Your task to perform on an android device: Go to CNN.com Image 0: 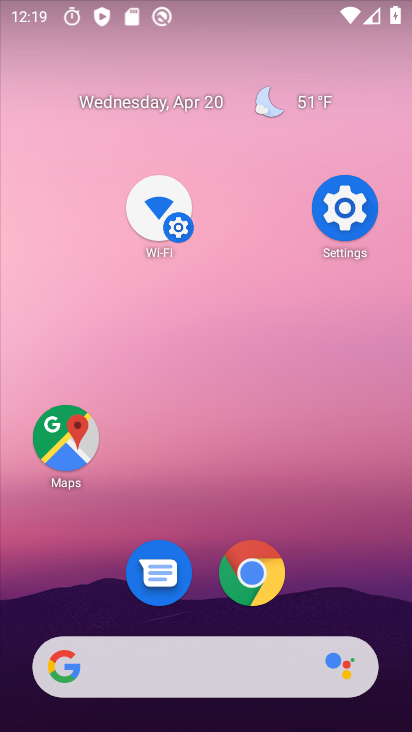
Step 0: drag from (327, 495) to (302, 194)
Your task to perform on an android device: Go to CNN.com Image 1: 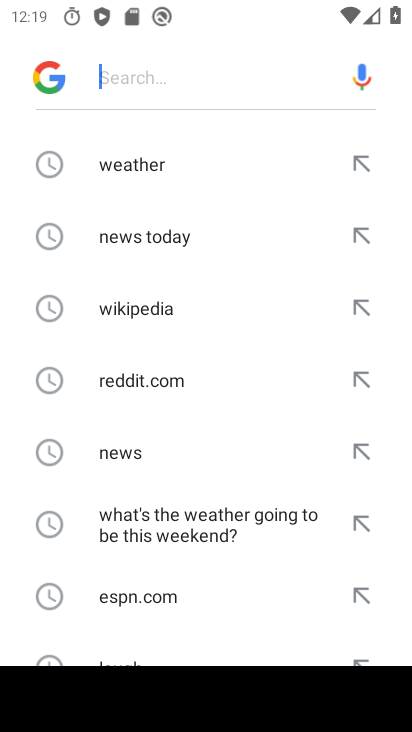
Step 1: type "CNN.com"
Your task to perform on an android device: Go to CNN.com Image 2: 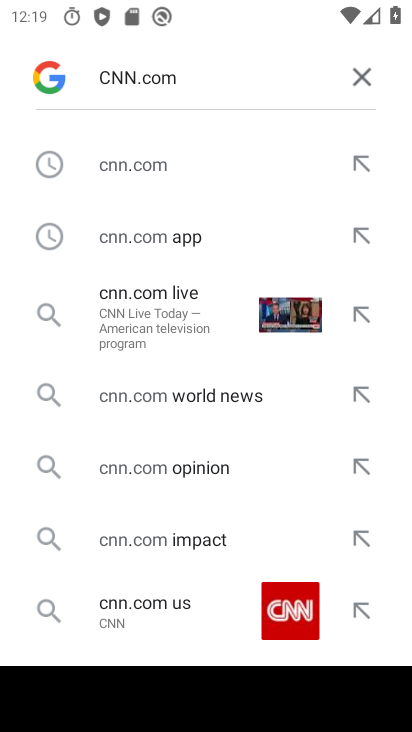
Step 2: click (148, 165)
Your task to perform on an android device: Go to CNN.com Image 3: 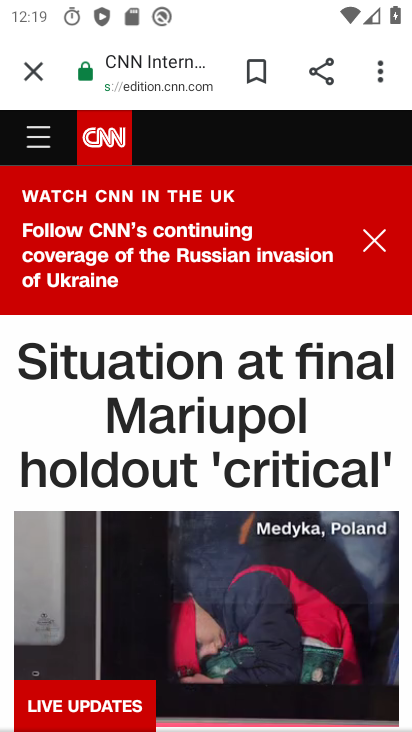
Step 3: task complete